Your task to perform on an android device: Do I have any events today? Image 0: 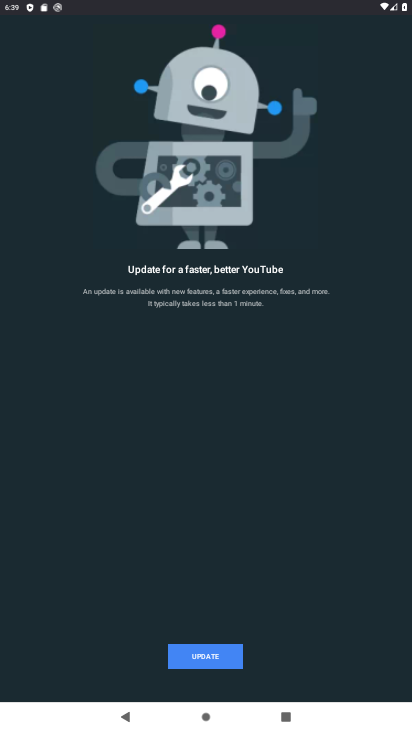
Step 0: press home button
Your task to perform on an android device: Do I have any events today? Image 1: 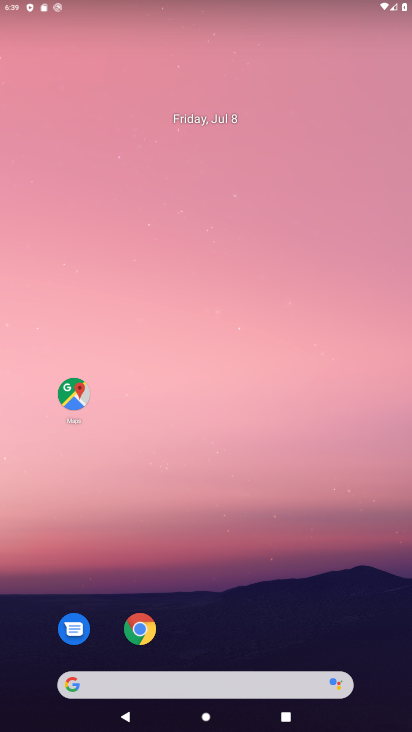
Step 1: drag from (341, 591) to (285, 215)
Your task to perform on an android device: Do I have any events today? Image 2: 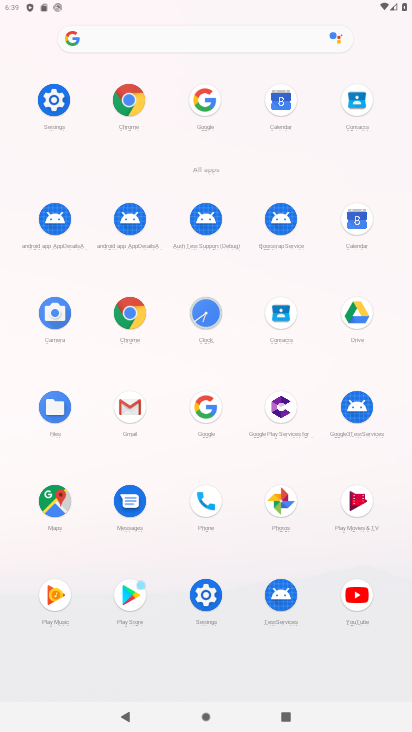
Step 2: press home button
Your task to perform on an android device: Do I have any events today? Image 3: 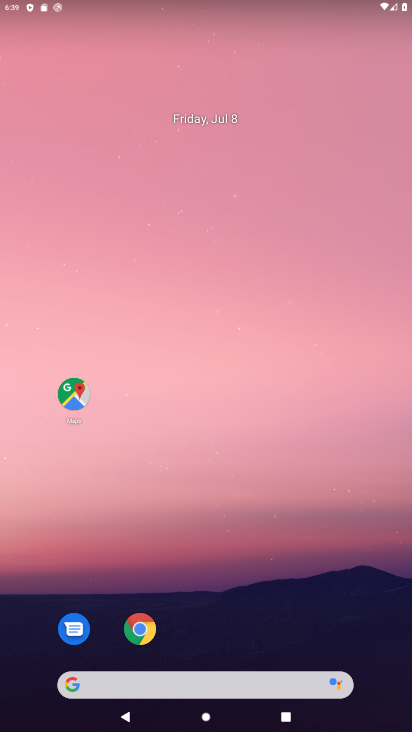
Step 3: drag from (350, 581) to (409, 92)
Your task to perform on an android device: Do I have any events today? Image 4: 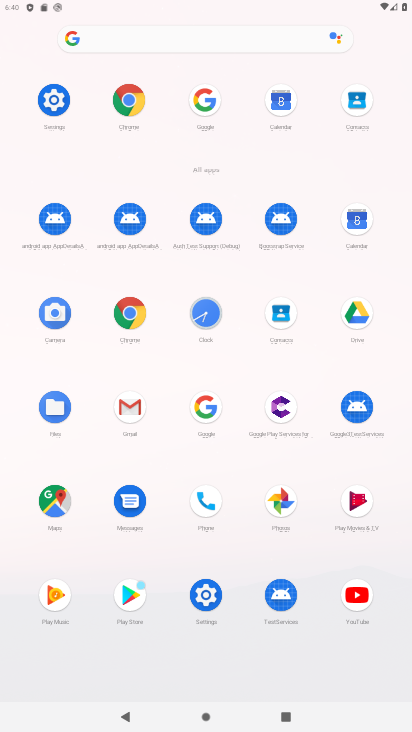
Step 4: click (395, 242)
Your task to perform on an android device: Do I have any events today? Image 5: 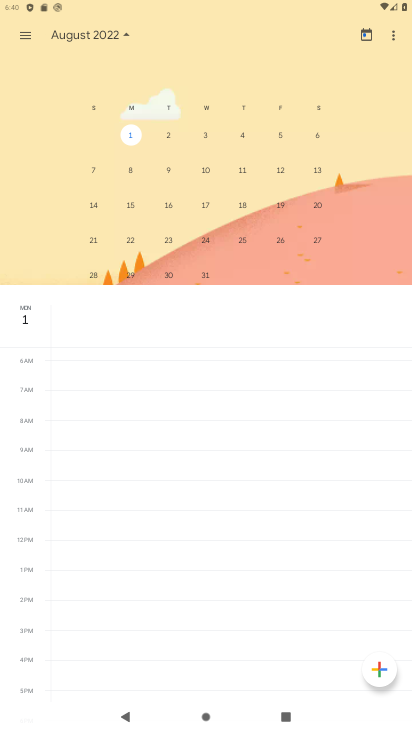
Step 5: click (130, 35)
Your task to perform on an android device: Do I have any events today? Image 6: 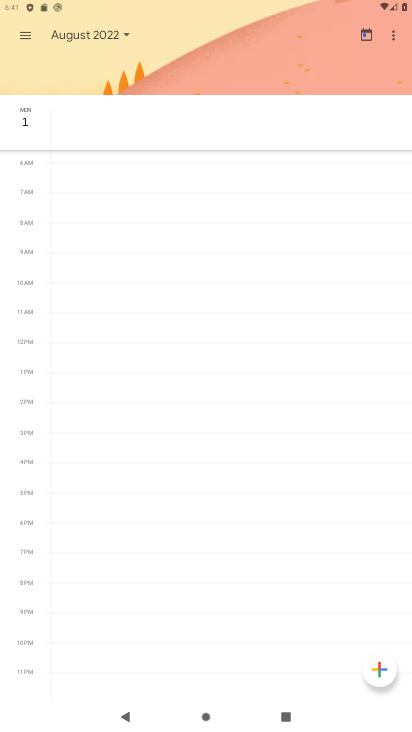
Step 6: click (28, 35)
Your task to perform on an android device: Do I have any events today? Image 7: 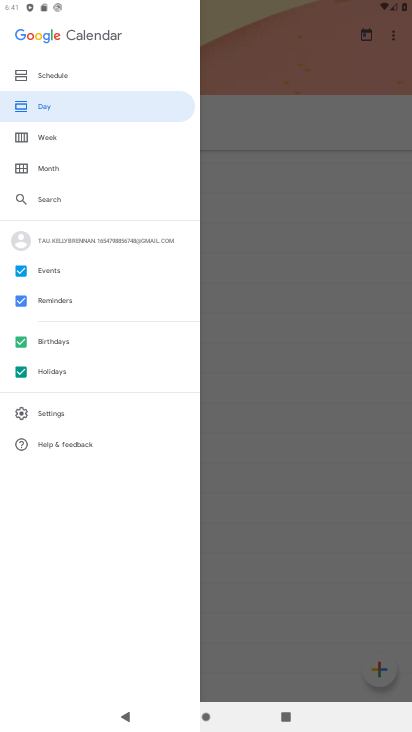
Step 7: click (58, 68)
Your task to perform on an android device: Do I have any events today? Image 8: 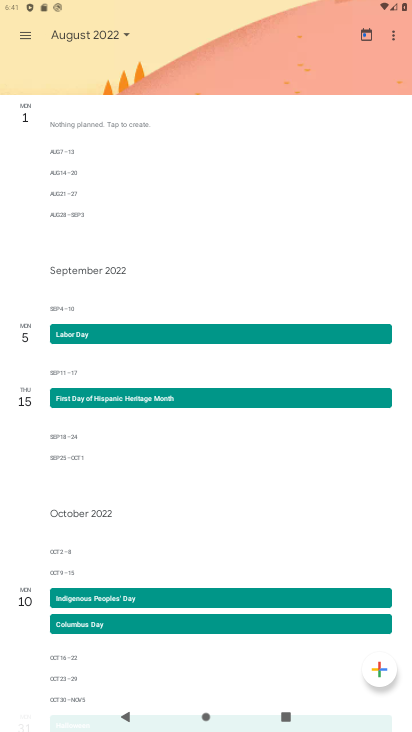
Step 8: task complete